Your task to perform on an android device: Go to notification settings Image 0: 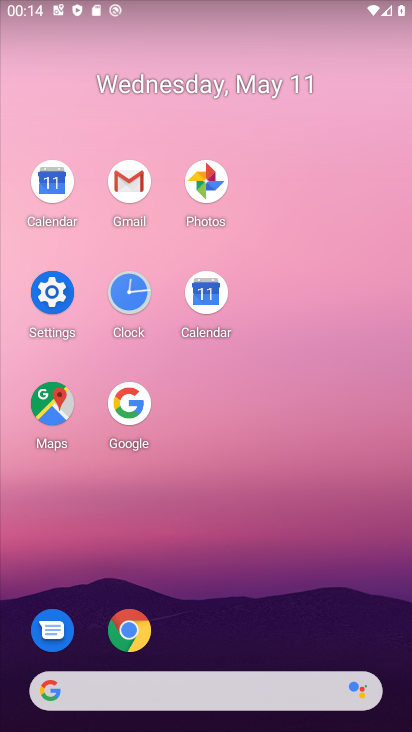
Step 0: click (54, 300)
Your task to perform on an android device: Go to notification settings Image 1: 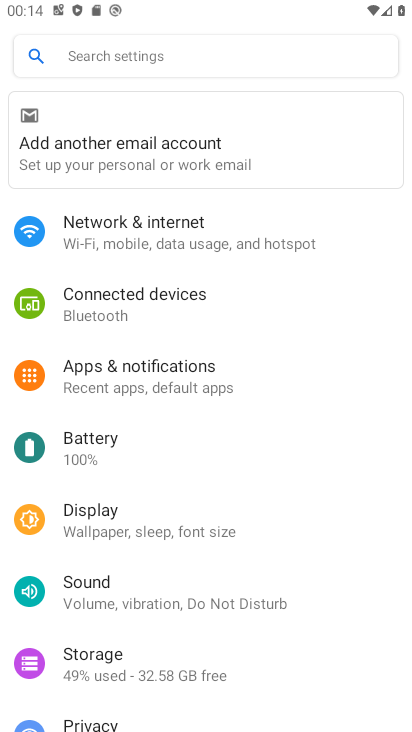
Step 1: click (159, 380)
Your task to perform on an android device: Go to notification settings Image 2: 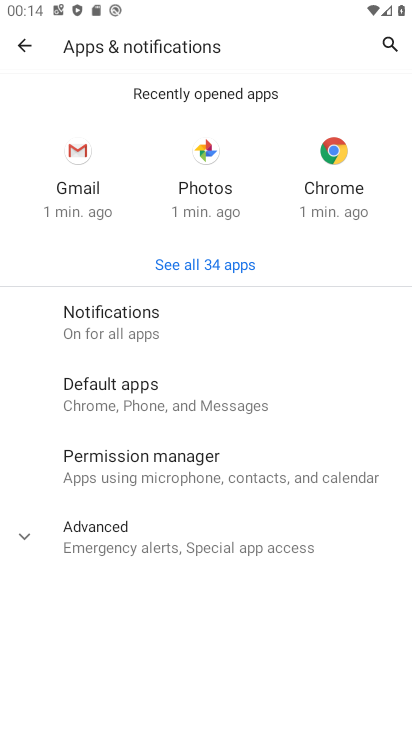
Step 2: click (123, 330)
Your task to perform on an android device: Go to notification settings Image 3: 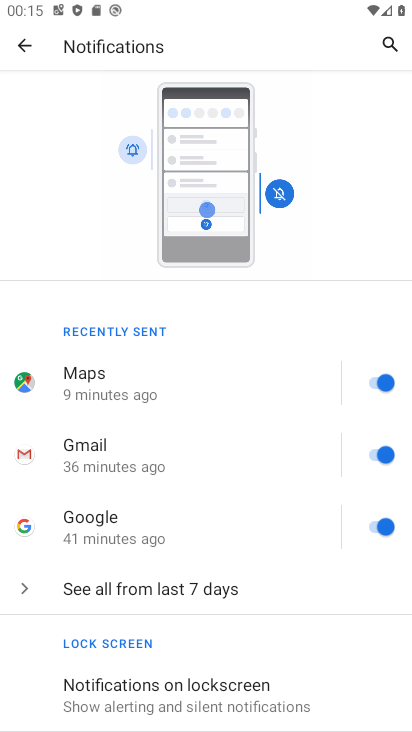
Step 3: task complete